Your task to perform on an android device: turn on showing notifications on the lock screen Image 0: 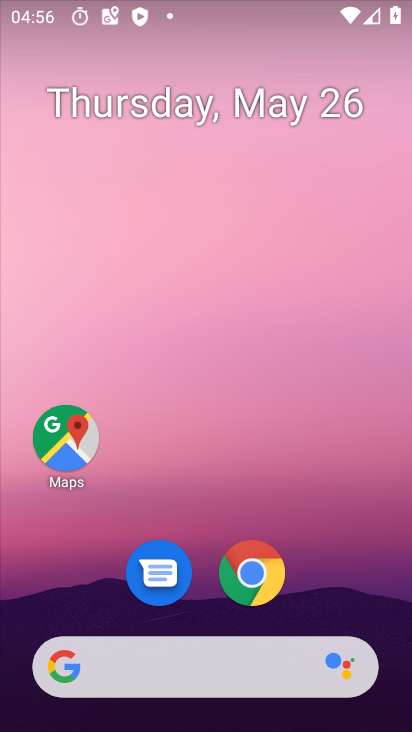
Step 0: drag from (294, 600) to (262, 43)
Your task to perform on an android device: turn on showing notifications on the lock screen Image 1: 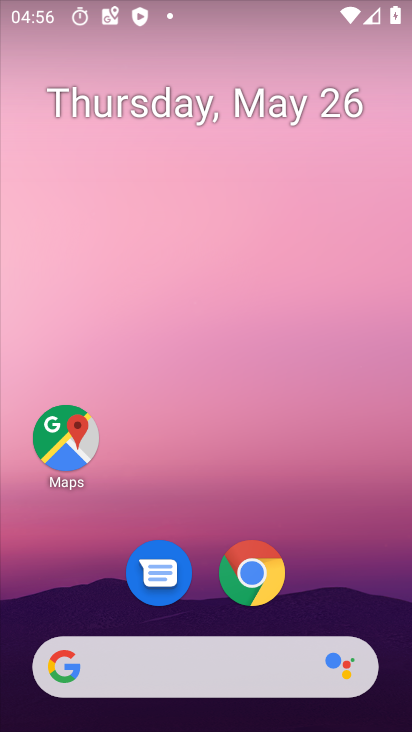
Step 1: drag from (333, 575) to (323, 14)
Your task to perform on an android device: turn on showing notifications on the lock screen Image 2: 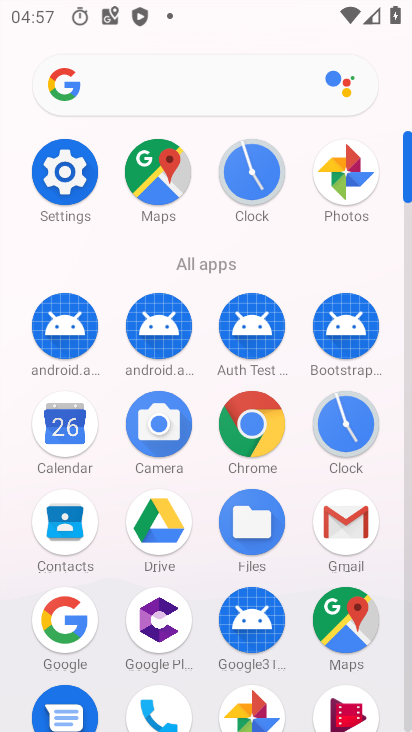
Step 2: click (69, 177)
Your task to perform on an android device: turn on showing notifications on the lock screen Image 3: 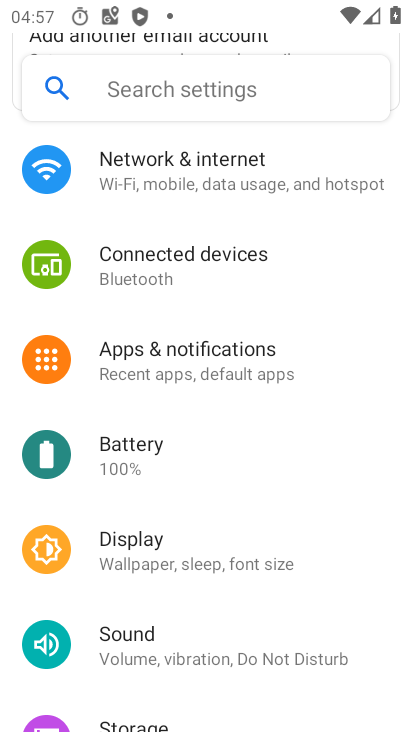
Step 3: click (198, 376)
Your task to perform on an android device: turn on showing notifications on the lock screen Image 4: 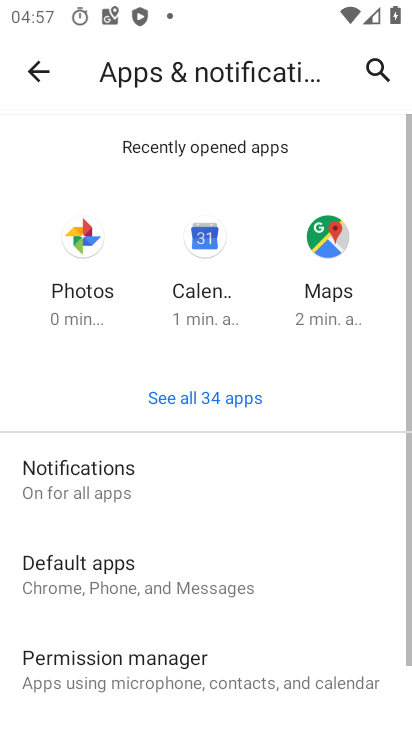
Step 4: click (96, 481)
Your task to perform on an android device: turn on showing notifications on the lock screen Image 5: 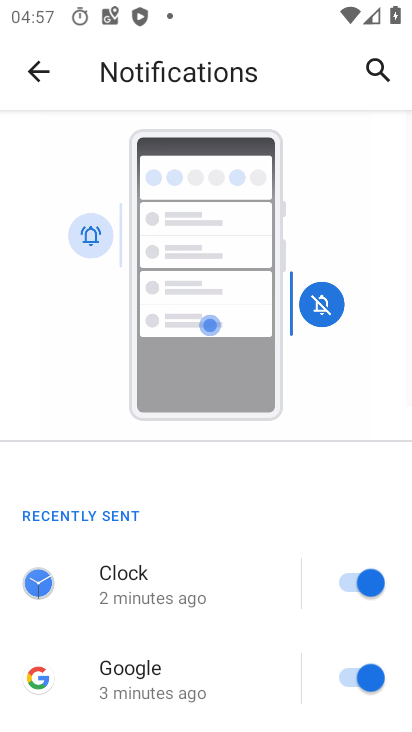
Step 5: drag from (163, 648) to (215, 336)
Your task to perform on an android device: turn on showing notifications on the lock screen Image 6: 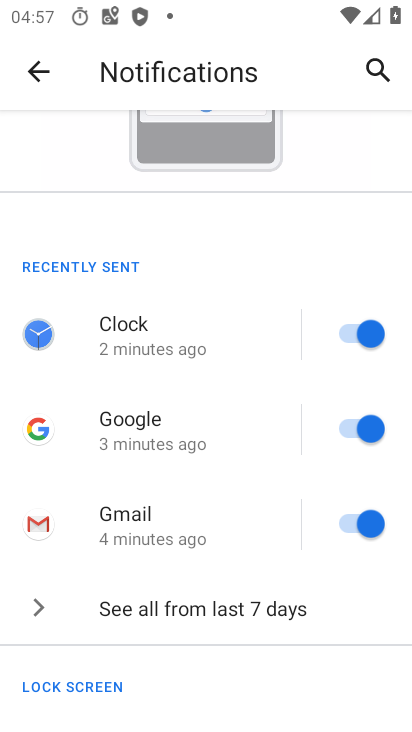
Step 6: drag from (180, 653) to (265, 249)
Your task to perform on an android device: turn on showing notifications on the lock screen Image 7: 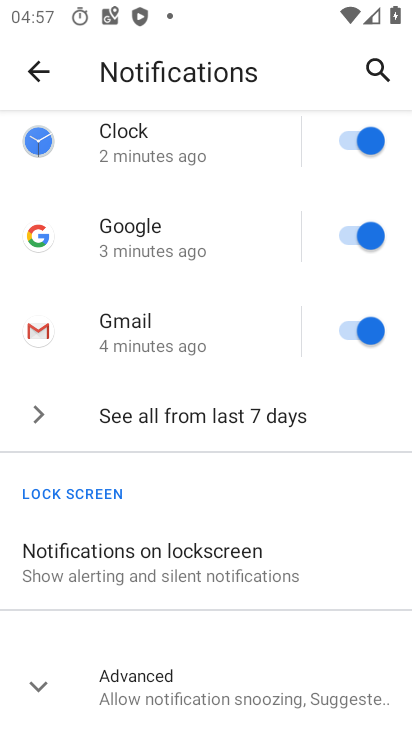
Step 7: click (121, 566)
Your task to perform on an android device: turn on showing notifications on the lock screen Image 8: 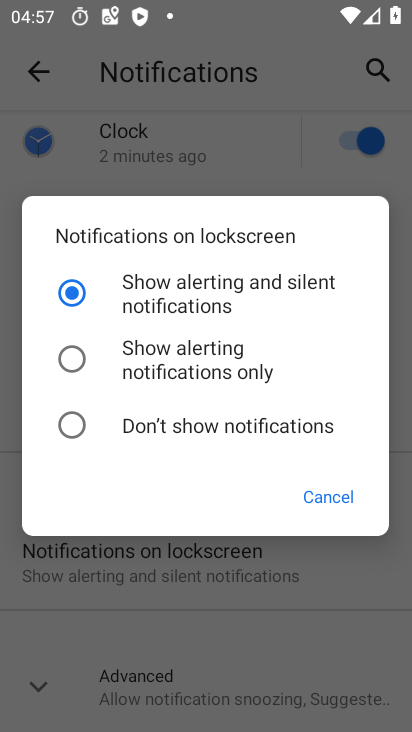
Step 8: task complete